Your task to perform on an android device: Open wifi settings Image 0: 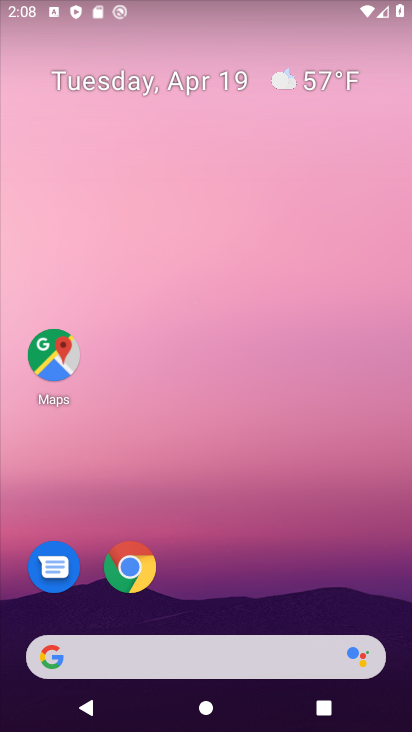
Step 0: drag from (391, 617) to (329, 145)
Your task to perform on an android device: Open wifi settings Image 1: 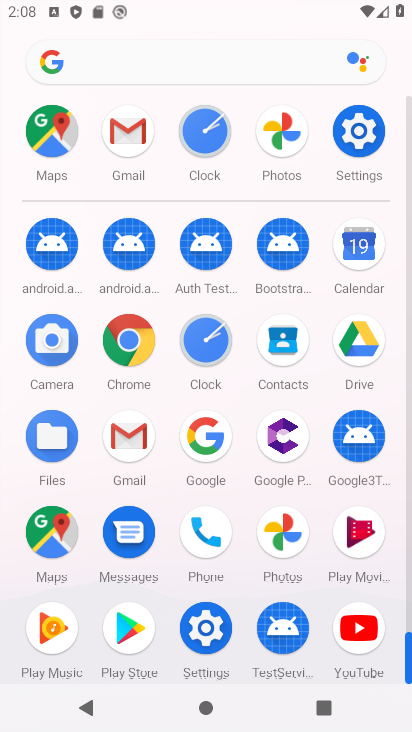
Step 1: click (204, 628)
Your task to perform on an android device: Open wifi settings Image 2: 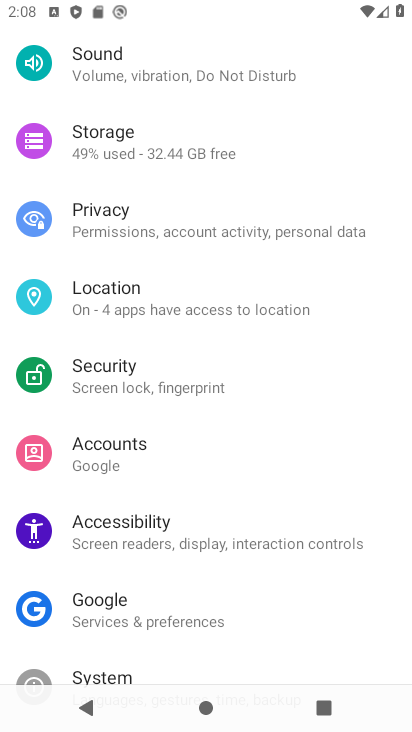
Step 2: drag from (365, 197) to (299, 516)
Your task to perform on an android device: Open wifi settings Image 3: 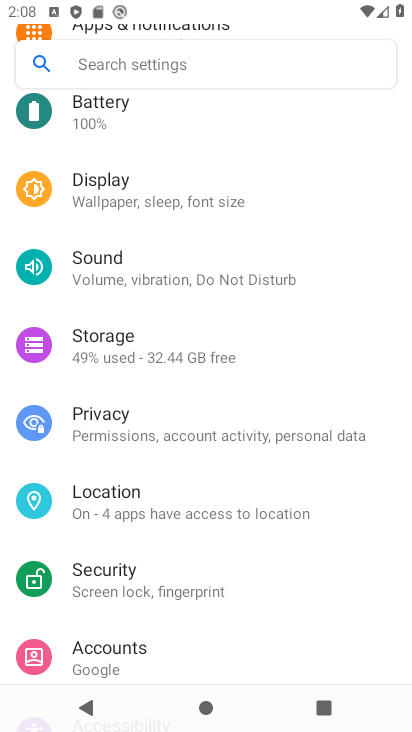
Step 3: drag from (327, 175) to (370, 490)
Your task to perform on an android device: Open wifi settings Image 4: 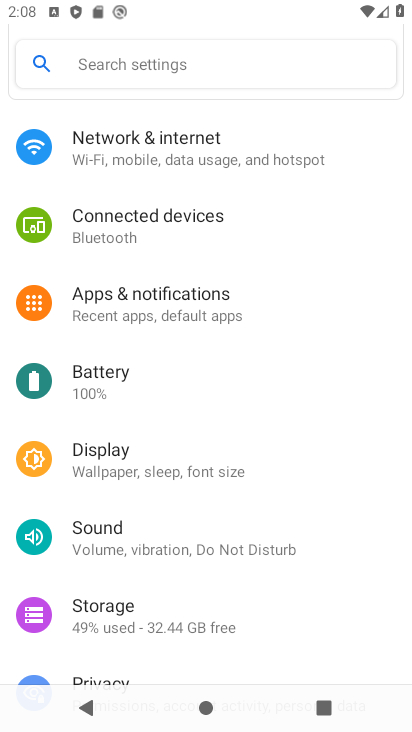
Step 4: drag from (346, 285) to (316, 555)
Your task to perform on an android device: Open wifi settings Image 5: 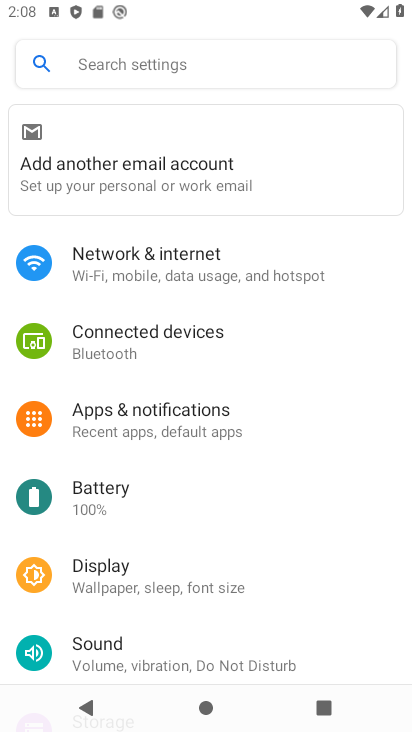
Step 5: click (106, 253)
Your task to perform on an android device: Open wifi settings Image 6: 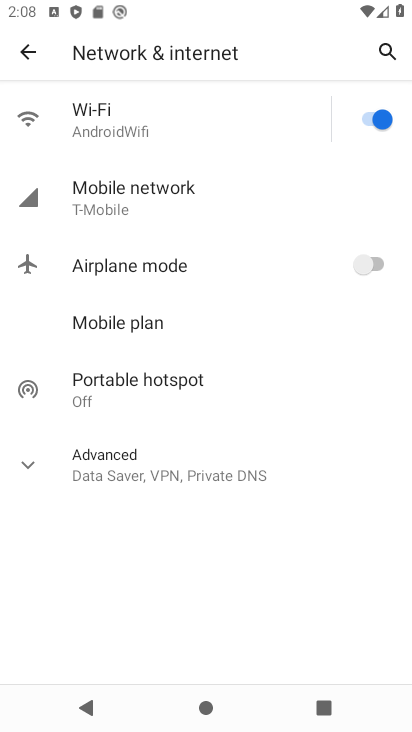
Step 6: click (80, 115)
Your task to perform on an android device: Open wifi settings Image 7: 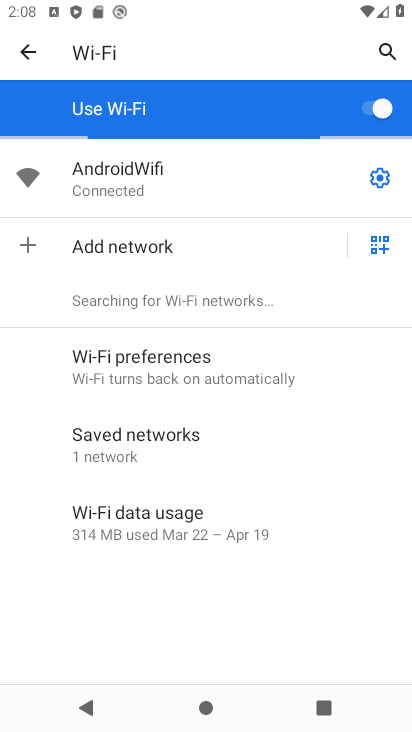
Step 7: click (377, 180)
Your task to perform on an android device: Open wifi settings Image 8: 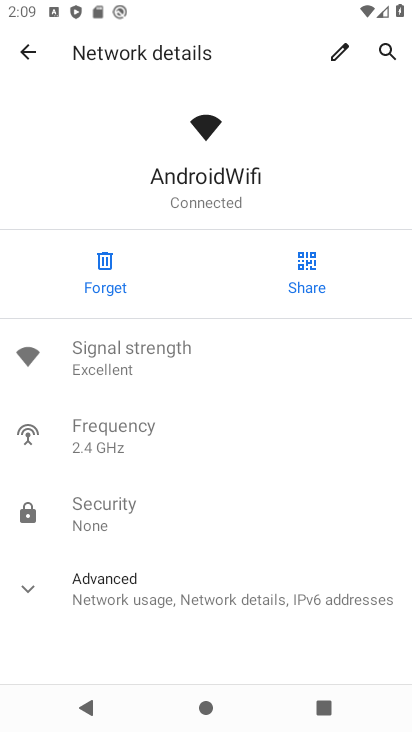
Step 8: drag from (301, 520) to (327, 191)
Your task to perform on an android device: Open wifi settings Image 9: 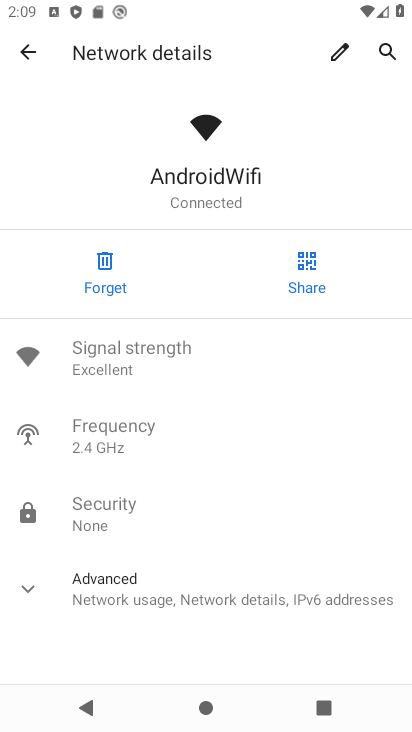
Step 9: click (22, 586)
Your task to perform on an android device: Open wifi settings Image 10: 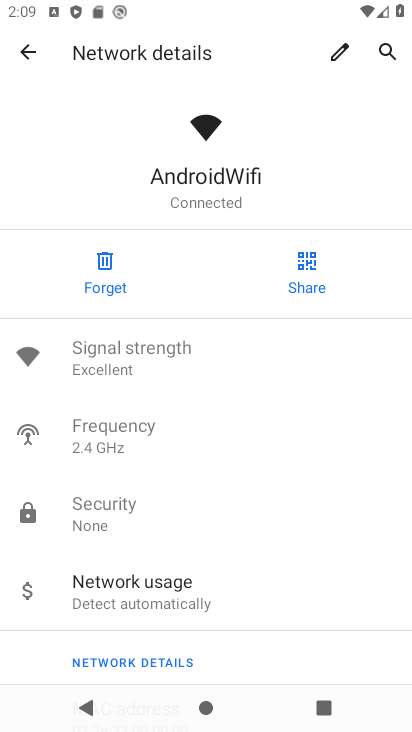
Step 10: task complete